Your task to perform on an android device: make emails show in primary in the gmail app Image 0: 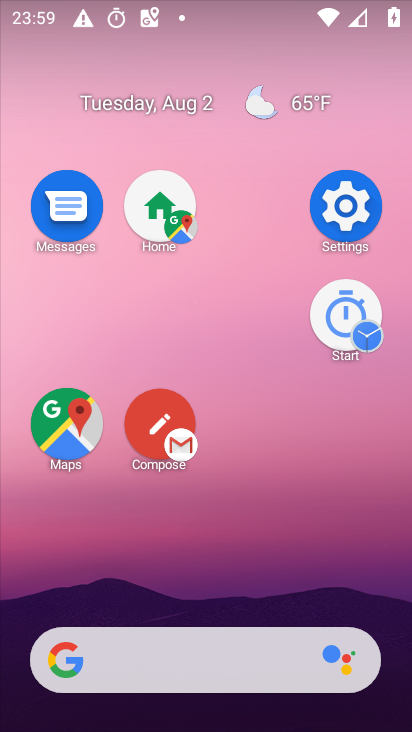
Step 0: drag from (267, 679) to (275, 155)
Your task to perform on an android device: make emails show in primary in the gmail app Image 1: 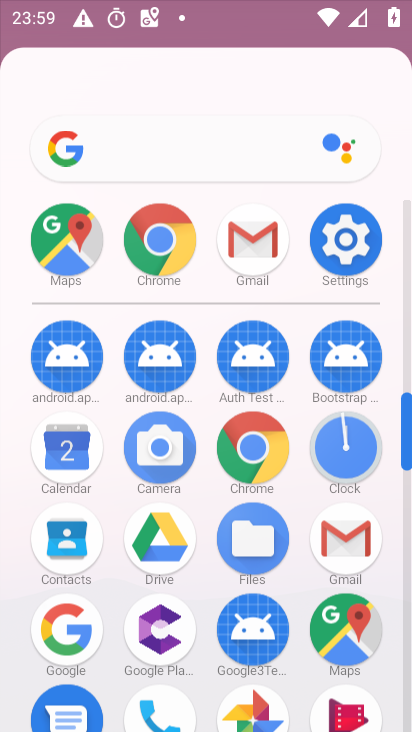
Step 1: drag from (266, 576) to (234, 180)
Your task to perform on an android device: make emails show in primary in the gmail app Image 2: 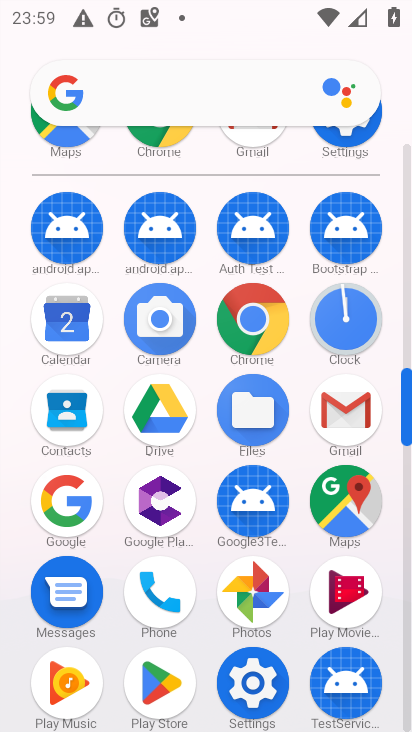
Step 2: click (323, 395)
Your task to perform on an android device: make emails show in primary in the gmail app Image 3: 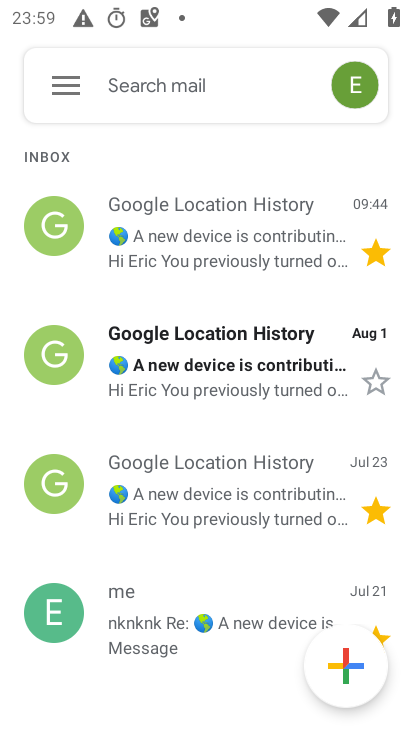
Step 3: click (75, 81)
Your task to perform on an android device: make emails show in primary in the gmail app Image 4: 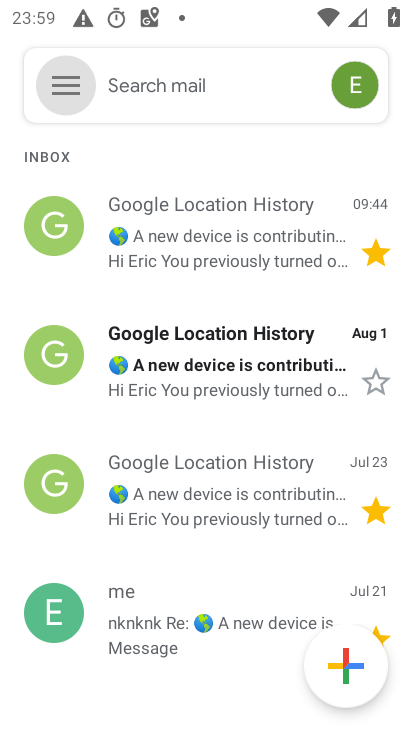
Step 4: click (77, 81)
Your task to perform on an android device: make emails show in primary in the gmail app Image 5: 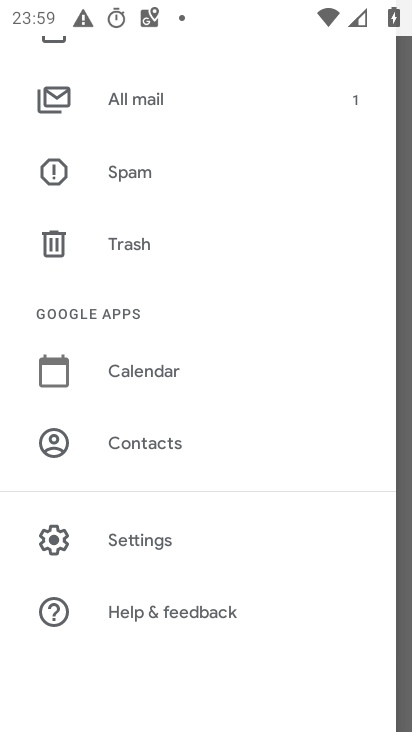
Step 5: click (137, 532)
Your task to perform on an android device: make emails show in primary in the gmail app Image 6: 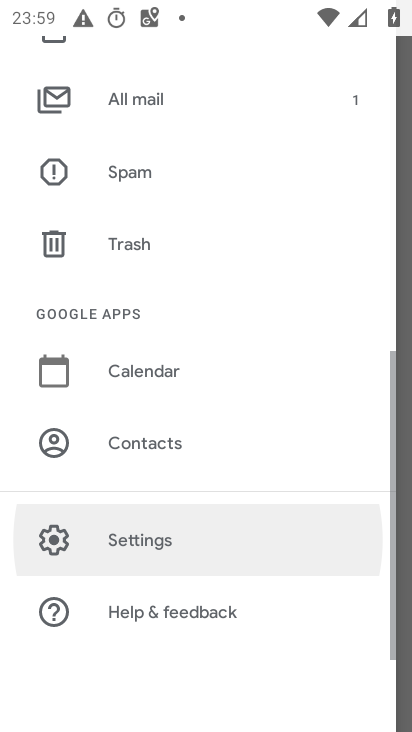
Step 6: click (138, 533)
Your task to perform on an android device: make emails show in primary in the gmail app Image 7: 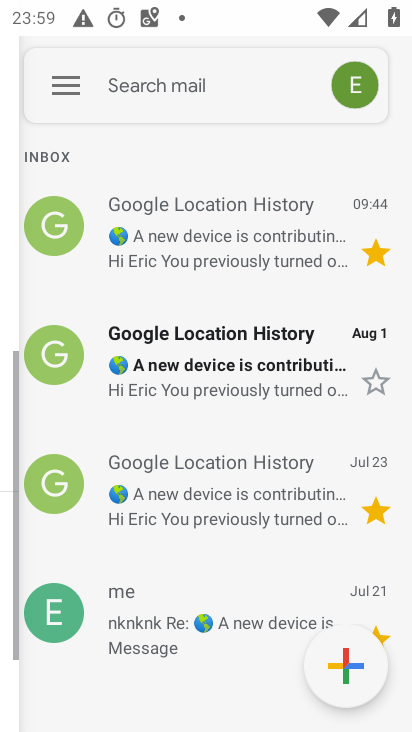
Step 7: click (140, 539)
Your task to perform on an android device: make emails show in primary in the gmail app Image 8: 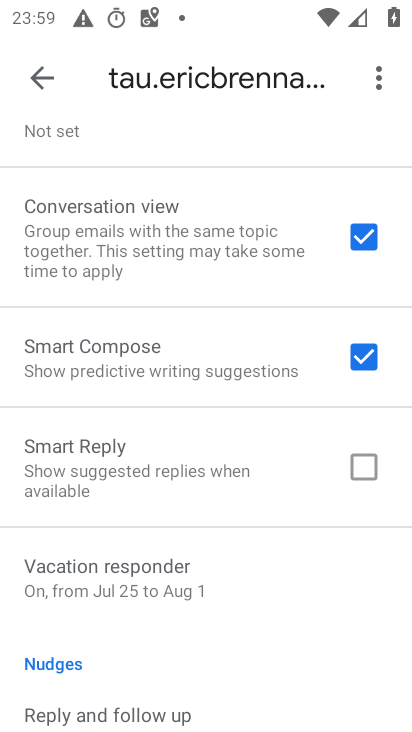
Step 8: task complete